Your task to perform on an android device: Play the last video I watched on Youtube Image 0: 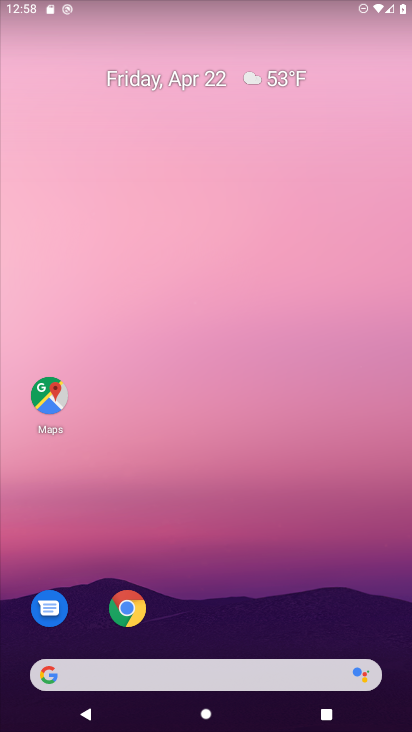
Step 0: drag from (389, 651) to (312, 178)
Your task to perform on an android device: Play the last video I watched on Youtube Image 1: 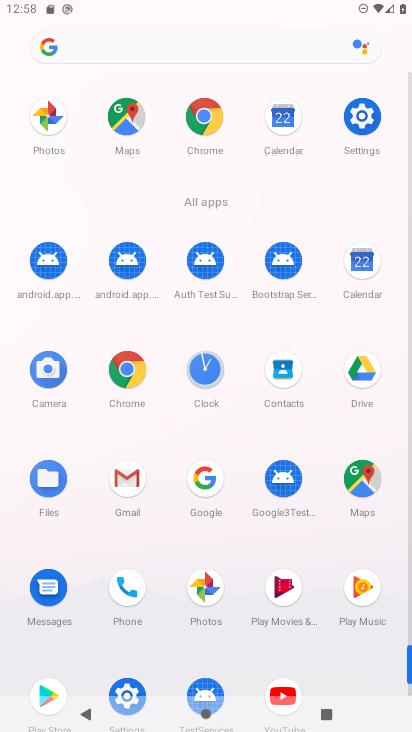
Step 1: click (406, 691)
Your task to perform on an android device: Play the last video I watched on Youtube Image 2: 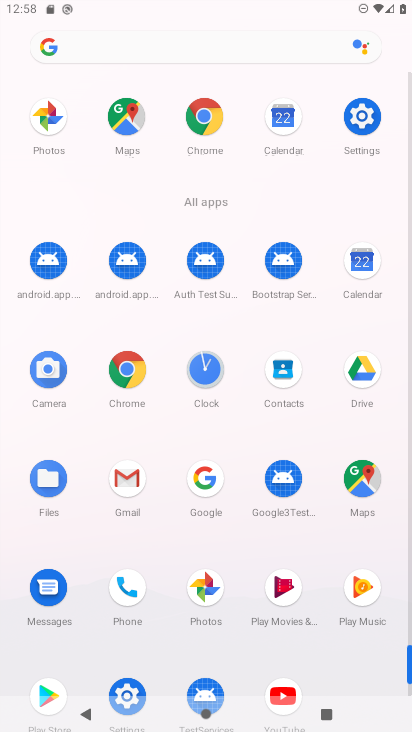
Step 2: click (408, 686)
Your task to perform on an android device: Play the last video I watched on Youtube Image 3: 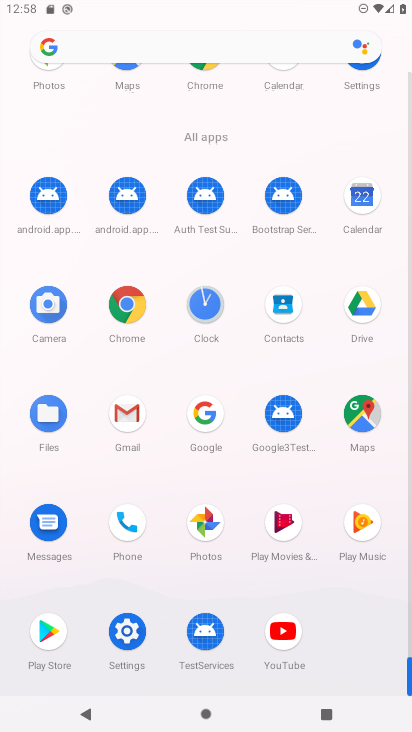
Step 3: click (280, 631)
Your task to perform on an android device: Play the last video I watched on Youtube Image 4: 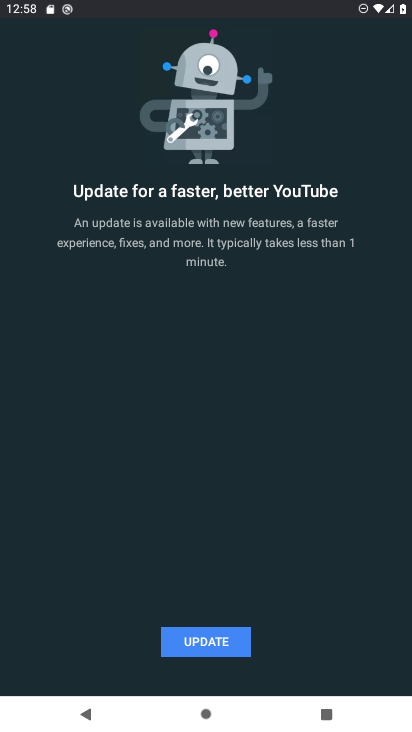
Step 4: click (192, 644)
Your task to perform on an android device: Play the last video I watched on Youtube Image 5: 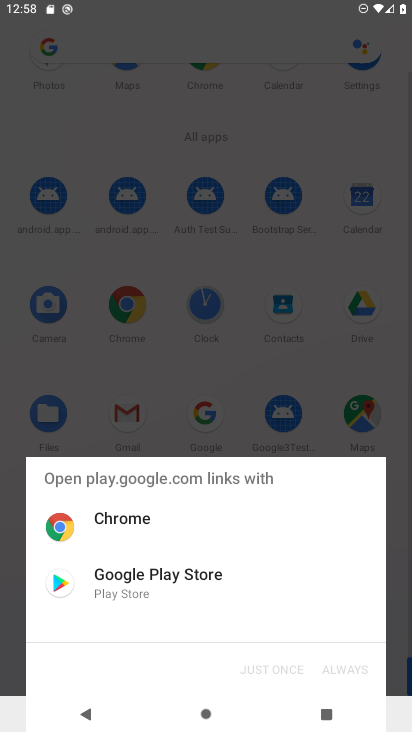
Step 5: click (131, 574)
Your task to perform on an android device: Play the last video I watched on Youtube Image 6: 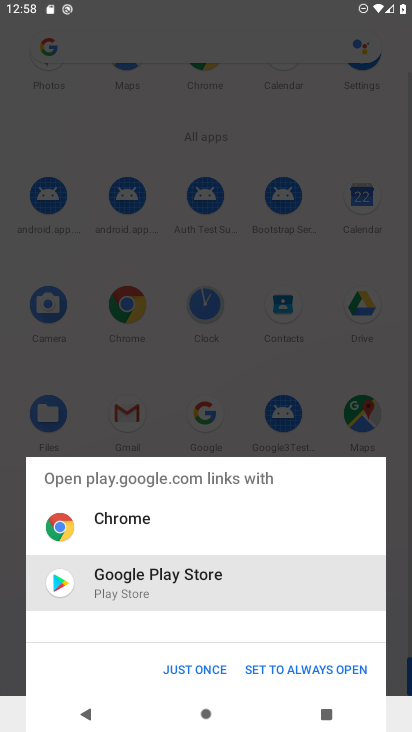
Step 6: click (194, 667)
Your task to perform on an android device: Play the last video I watched on Youtube Image 7: 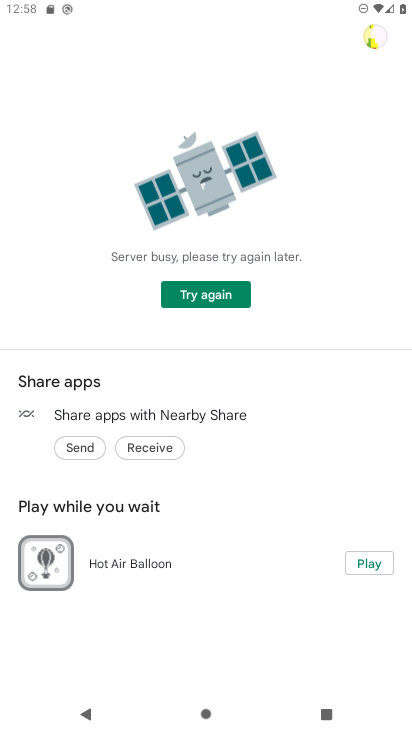
Step 7: click (178, 298)
Your task to perform on an android device: Play the last video I watched on Youtube Image 8: 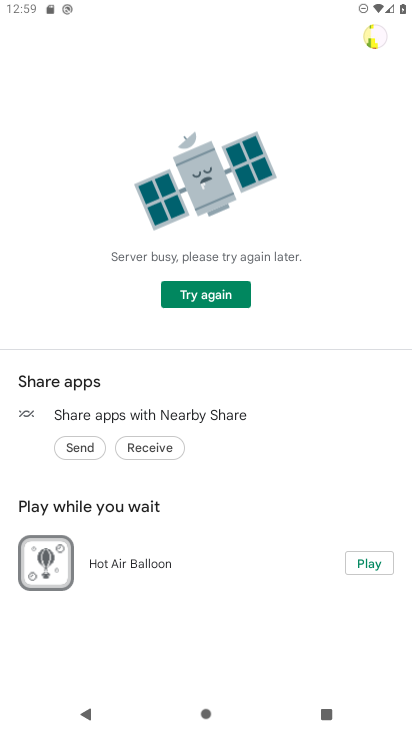
Step 8: task complete